Your task to perform on an android device: Open notification settings Image 0: 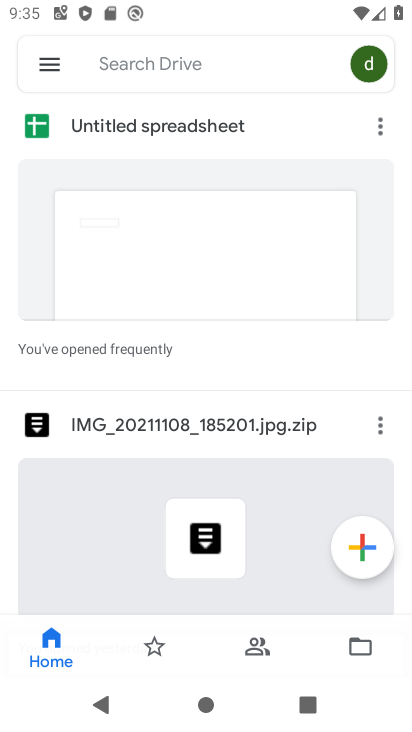
Step 0: press home button
Your task to perform on an android device: Open notification settings Image 1: 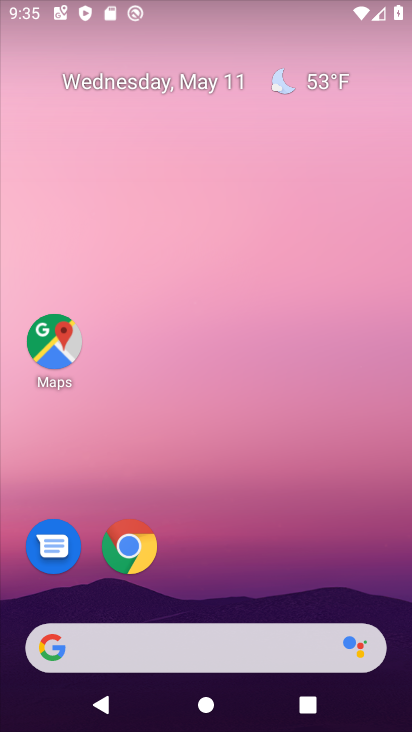
Step 1: drag from (385, 578) to (304, 66)
Your task to perform on an android device: Open notification settings Image 2: 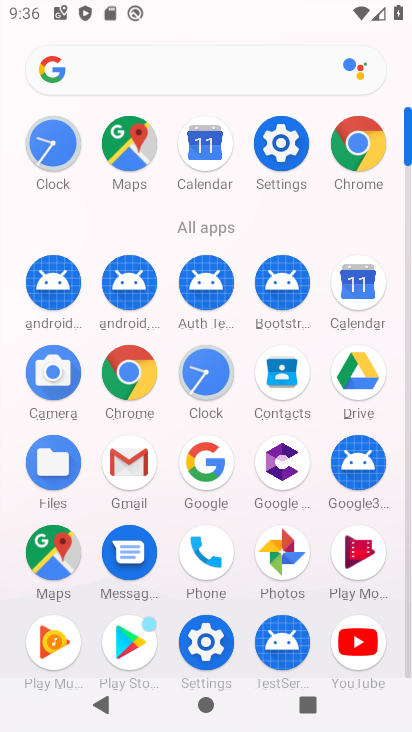
Step 2: click (200, 653)
Your task to perform on an android device: Open notification settings Image 3: 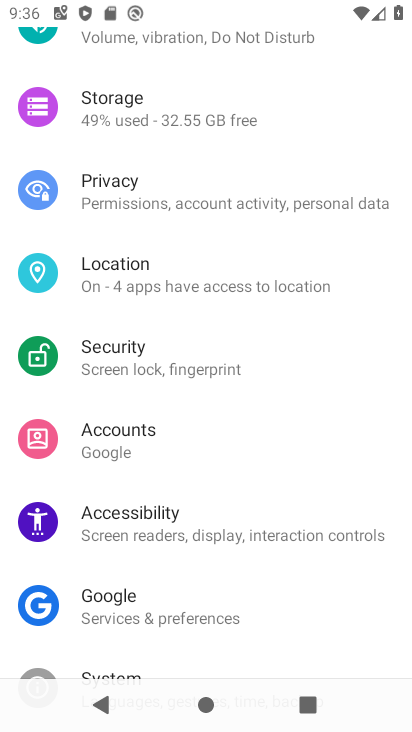
Step 3: drag from (235, 164) to (251, 580)
Your task to perform on an android device: Open notification settings Image 4: 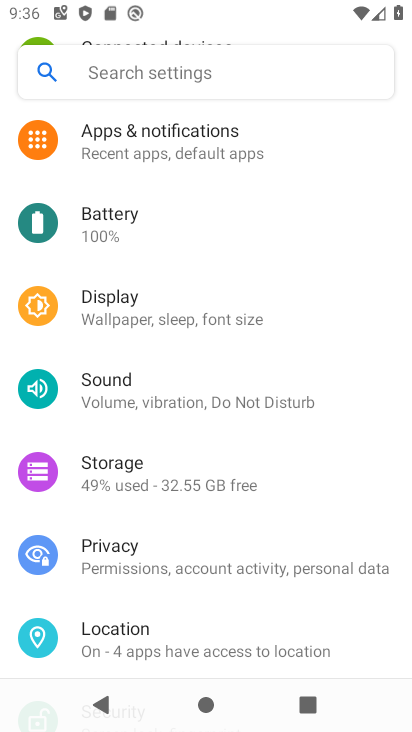
Step 4: click (188, 134)
Your task to perform on an android device: Open notification settings Image 5: 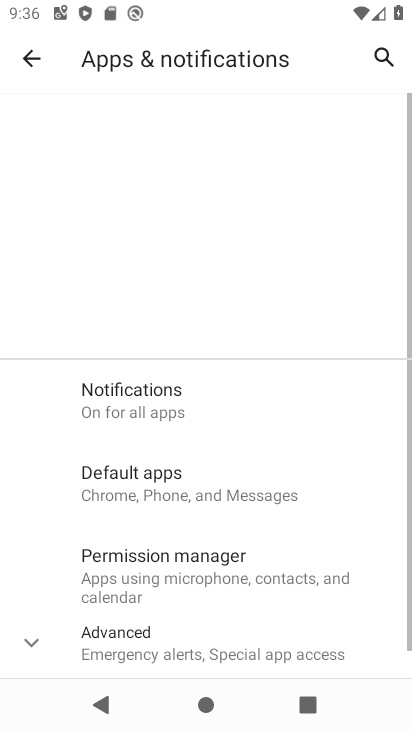
Step 5: click (200, 397)
Your task to perform on an android device: Open notification settings Image 6: 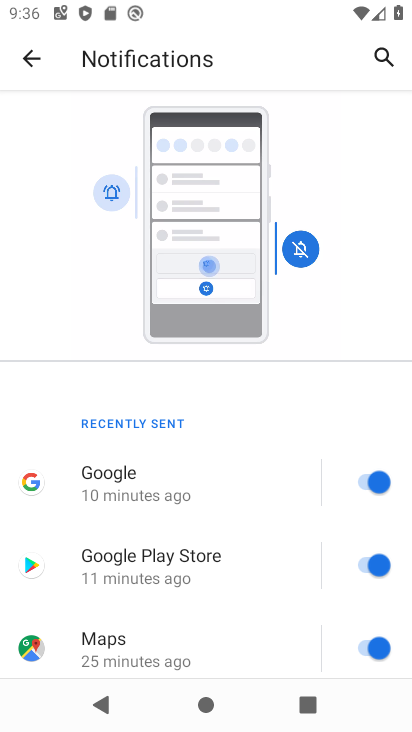
Step 6: task complete